Your task to perform on an android device: add a contact in the contacts app Image 0: 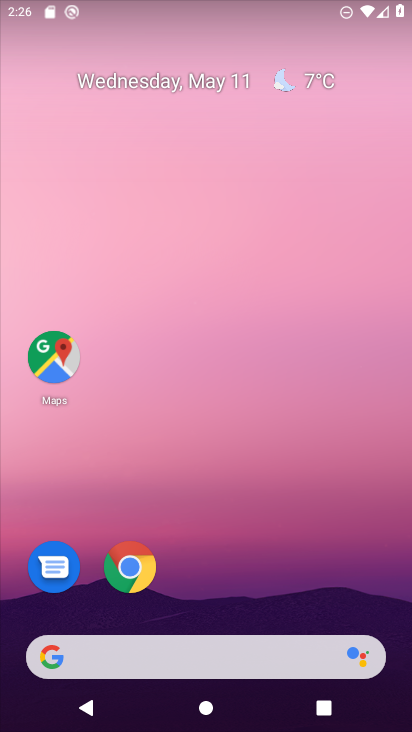
Step 0: drag from (270, 576) to (244, 262)
Your task to perform on an android device: add a contact in the contacts app Image 1: 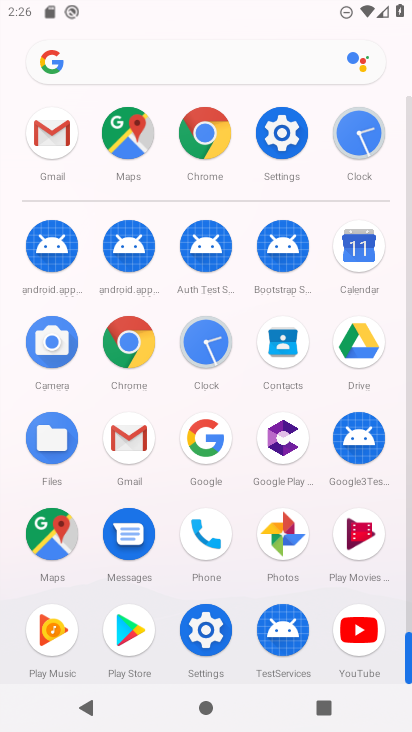
Step 1: click (272, 356)
Your task to perform on an android device: add a contact in the contacts app Image 2: 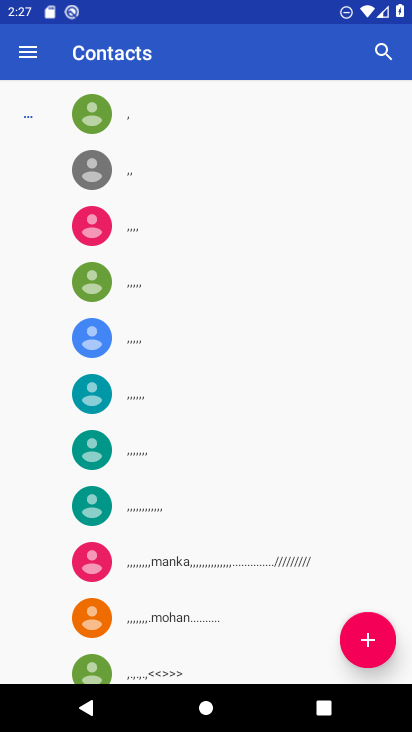
Step 2: click (384, 636)
Your task to perform on an android device: add a contact in the contacts app Image 3: 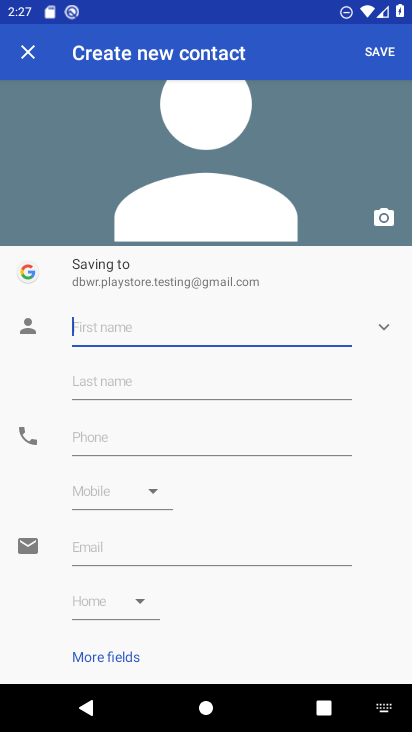
Step 3: type "efrfet"
Your task to perform on an android device: add a contact in the contacts app Image 4: 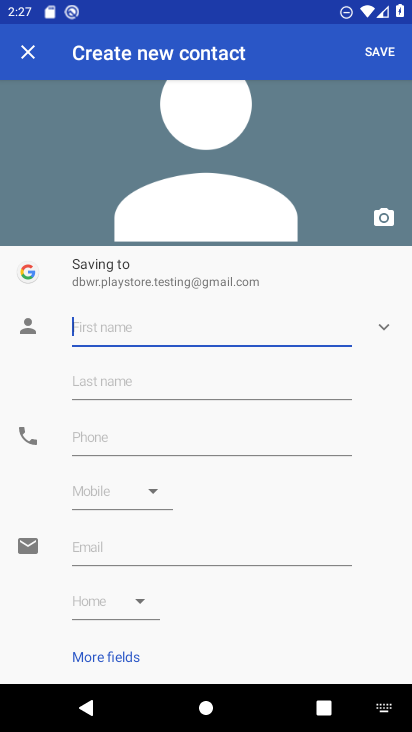
Step 4: click (169, 444)
Your task to perform on an android device: add a contact in the contacts app Image 5: 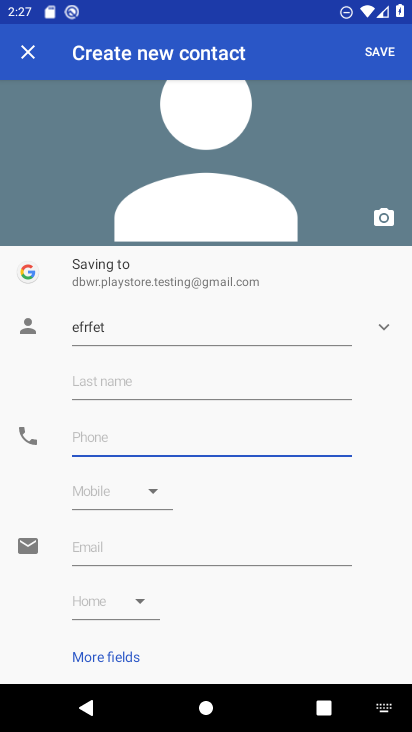
Step 5: type "9999999999"
Your task to perform on an android device: add a contact in the contacts app Image 6: 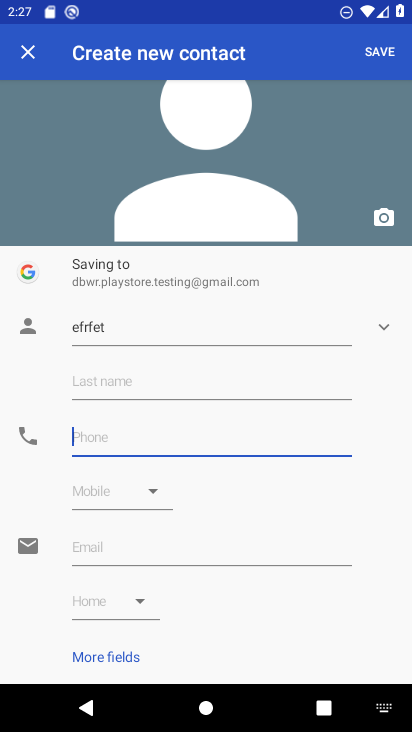
Step 6: click (379, 42)
Your task to perform on an android device: add a contact in the contacts app Image 7: 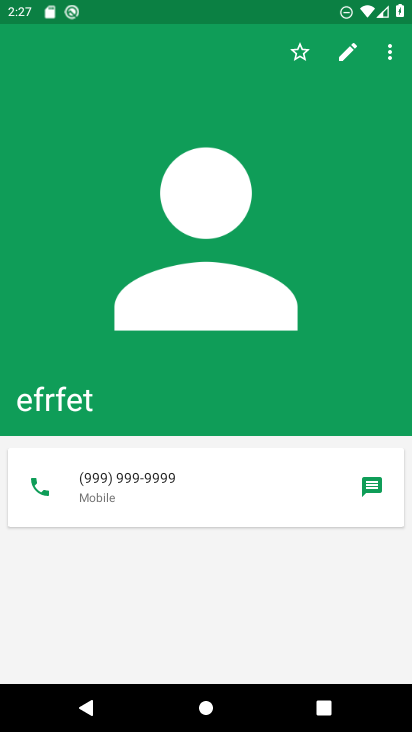
Step 7: task complete